Your task to perform on an android device: change text size in settings app Image 0: 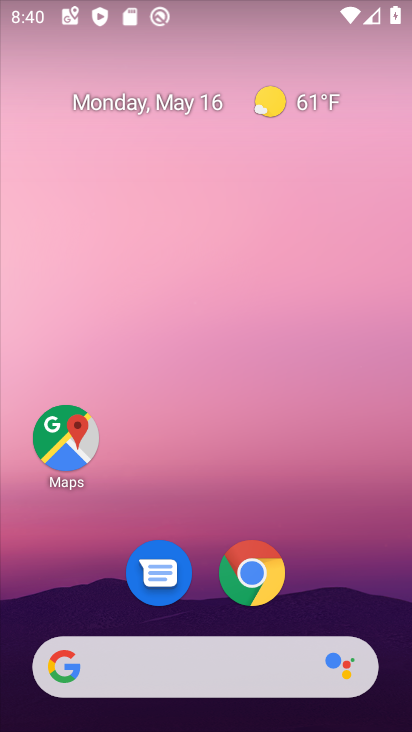
Step 0: drag from (181, 730) to (151, 122)
Your task to perform on an android device: change text size in settings app Image 1: 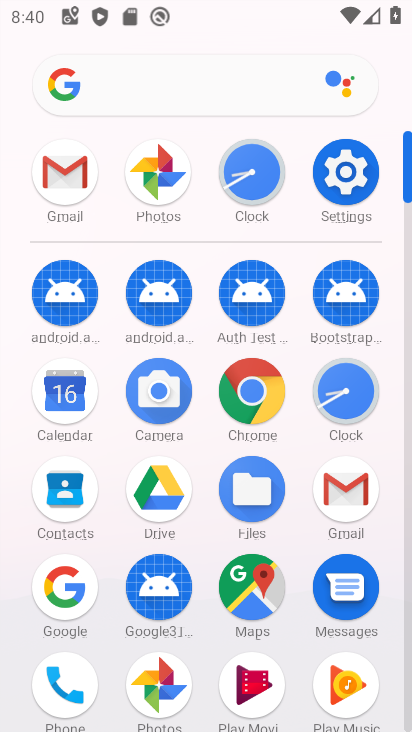
Step 1: click (342, 163)
Your task to perform on an android device: change text size in settings app Image 2: 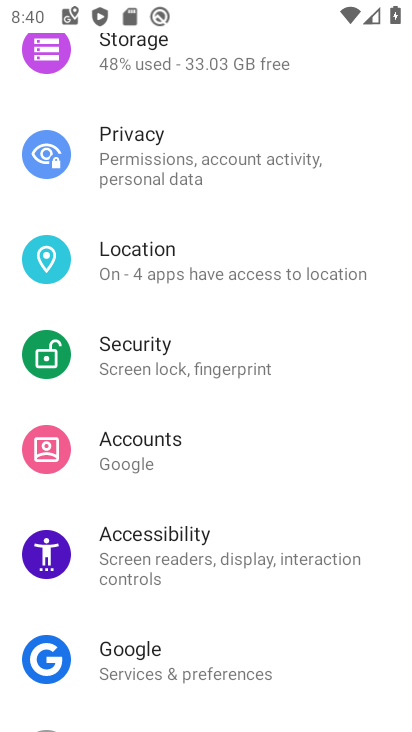
Step 2: drag from (224, 133) to (231, 501)
Your task to perform on an android device: change text size in settings app Image 3: 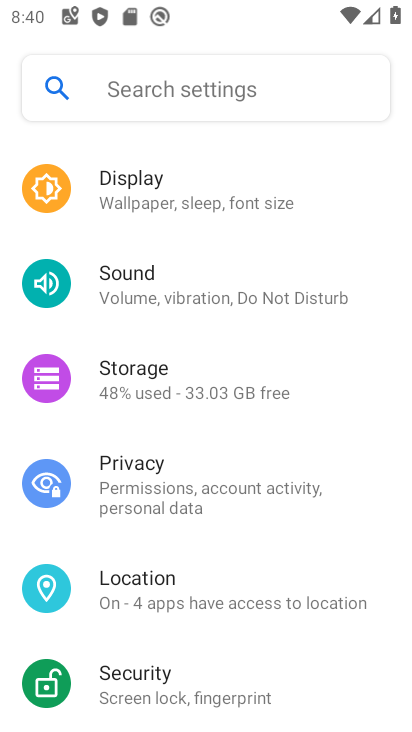
Step 3: drag from (229, 230) to (233, 378)
Your task to perform on an android device: change text size in settings app Image 4: 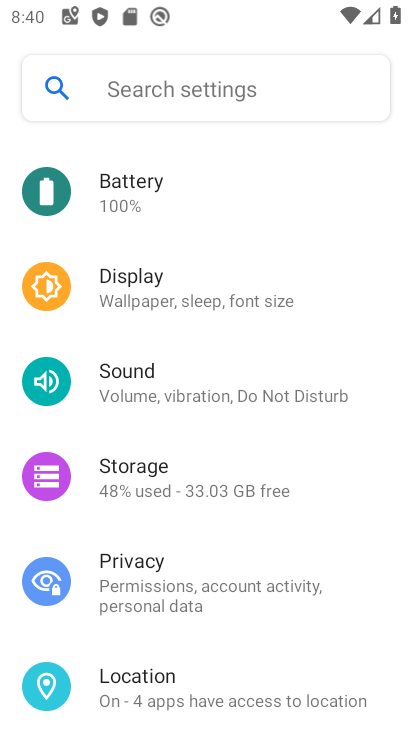
Step 4: click (203, 300)
Your task to perform on an android device: change text size in settings app Image 5: 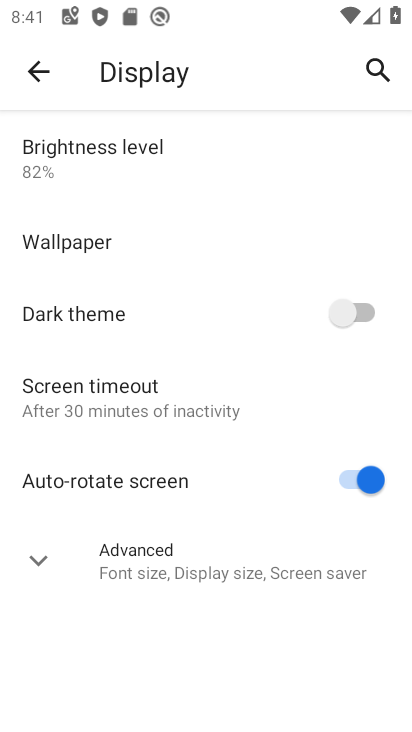
Step 5: click (174, 569)
Your task to perform on an android device: change text size in settings app Image 6: 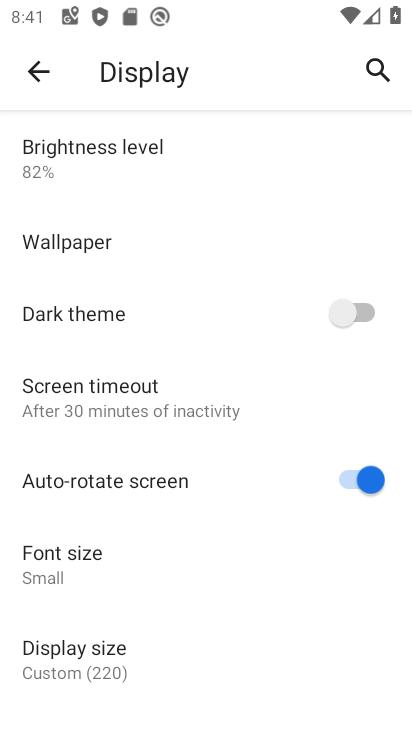
Step 6: click (73, 556)
Your task to perform on an android device: change text size in settings app Image 7: 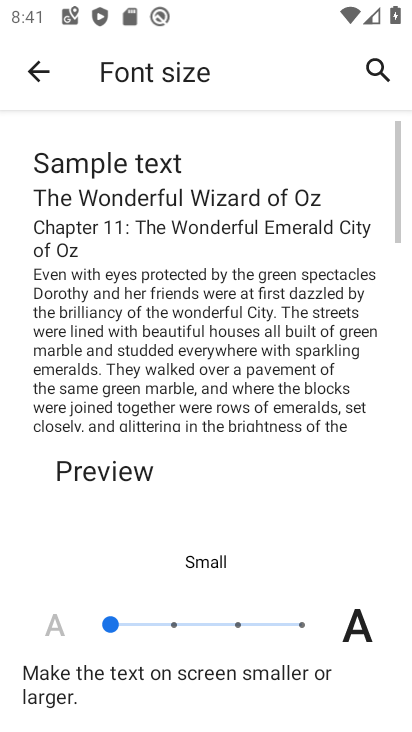
Step 7: click (172, 624)
Your task to perform on an android device: change text size in settings app Image 8: 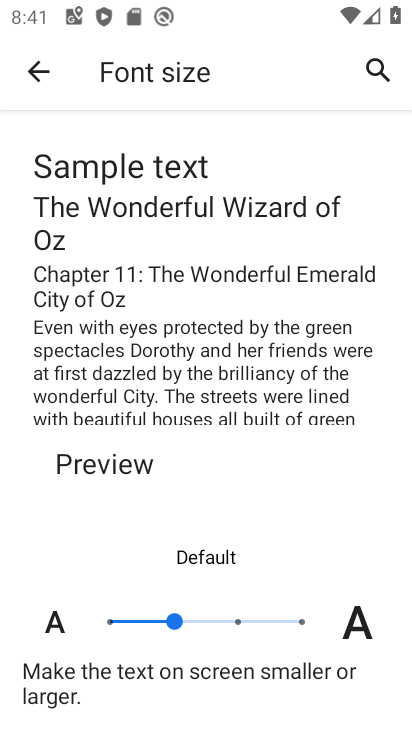
Step 8: task complete